Your task to perform on an android device: turn smart compose on in the gmail app Image 0: 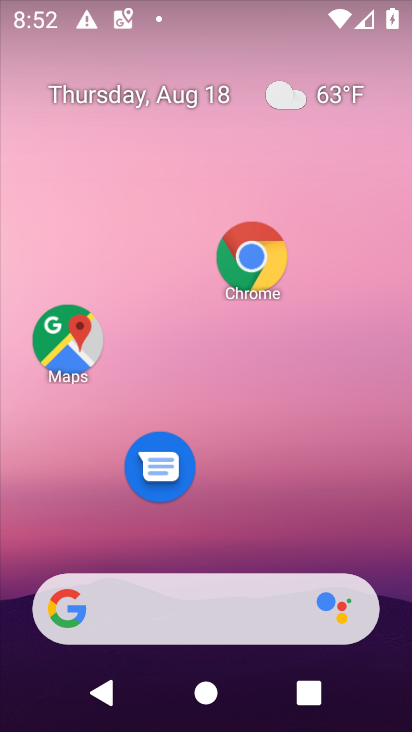
Step 0: drag from (224, 516) to (227, 39)
Your task to perform on an android device: turn smart compose on in the gmail app Image 1: 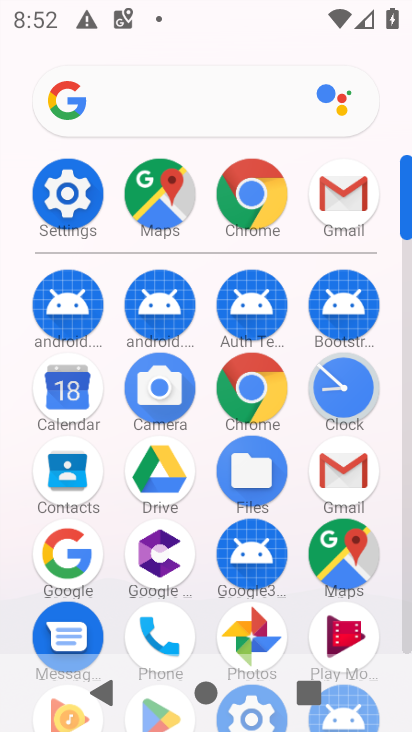
Step 1: task complete